Your task to perform on an android device: turn off data saver in the chrome app Image 0: 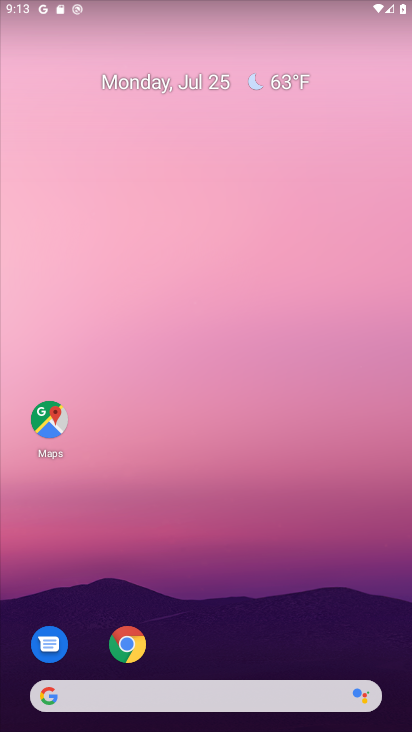
Step 0: drag from (311, 433) to (321, 277)
Your task to perform on an android device: turn off data saver in the chrome app Image 1: 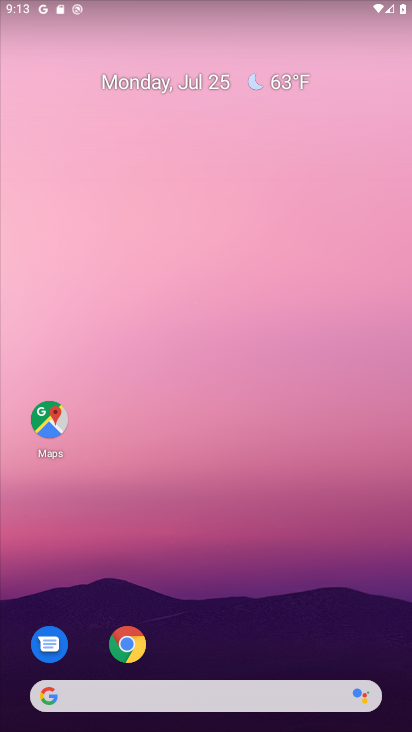
Step 1: drag from (215, 567) to (267, 187)
Your task to perform on an android device: turn off data saver in the chrome app Image 2: 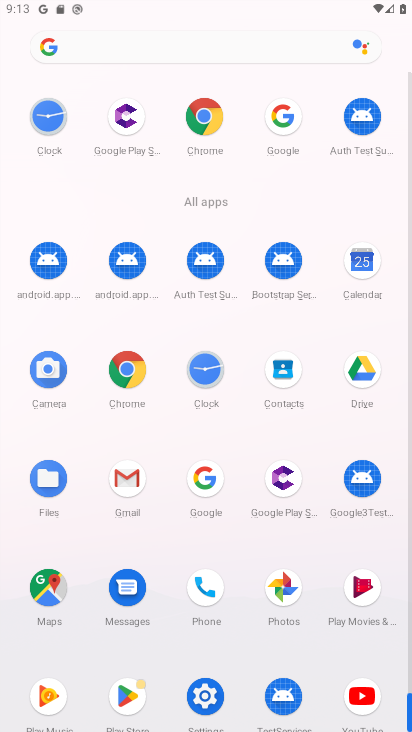
Step 2: click (215, 102)
Your task to perform on an android device: turn off data saver in the chrome app Image 3: 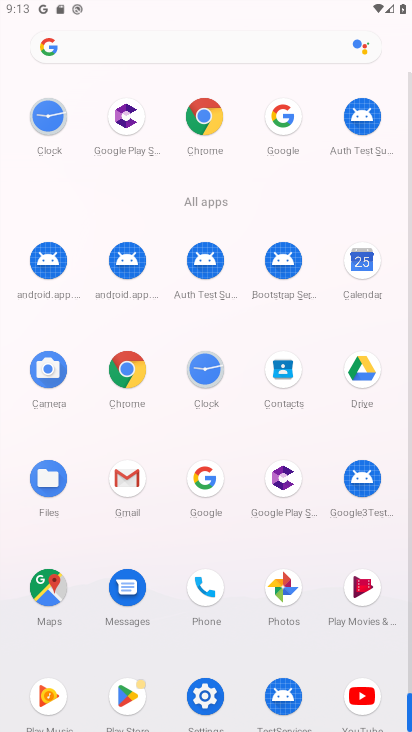
Step 3: click (209, 116)
Your task to perform on an android device: turn off data saver in the chrome app Image 4: 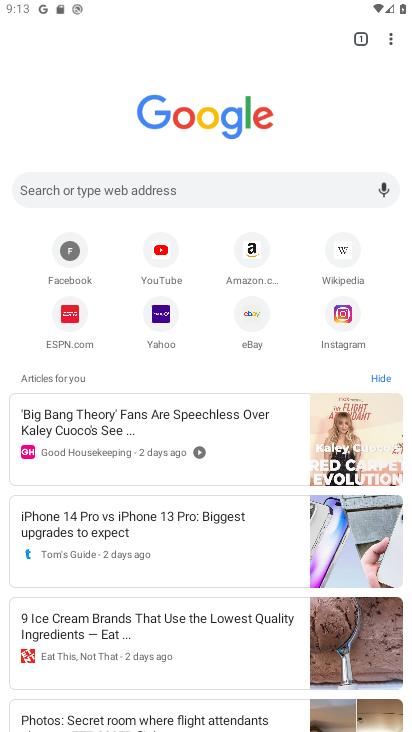
Step 4: click (383, 41)
Your task to perform on an android device: turn off data saver in the chrome app Image 5: 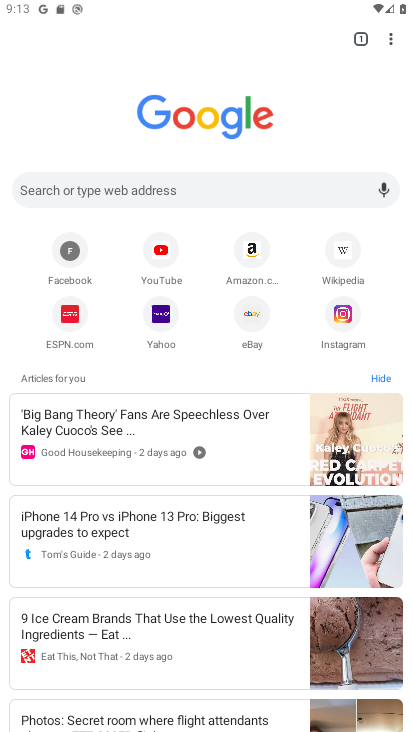
Step 5: click (391, 36)
Your task to perform on an android device: turn off data saver in the chrome app Image 6: 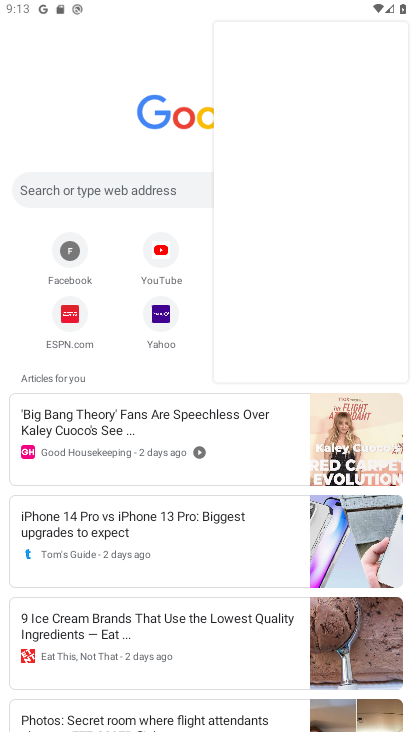
Step 6: click (392, 36)
Your task to perform on an android device: turn off data saver in the chrome app Image 7: 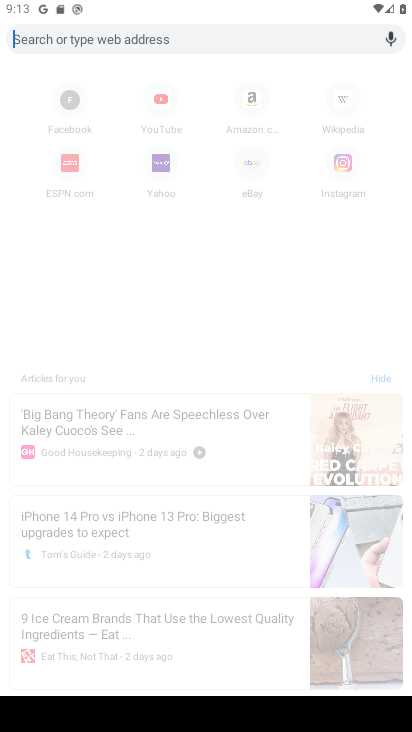
Step 7: click (18, 33)
Your task to perform on an android device: turn off data saver in the chrome app Image 8: 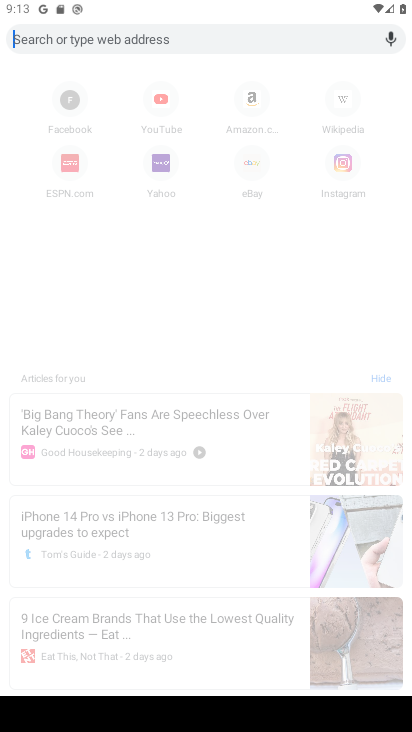
Step 8: click (28, 38)
Your task to perform on an android device: turn off data saver in the chrome app Image 9: 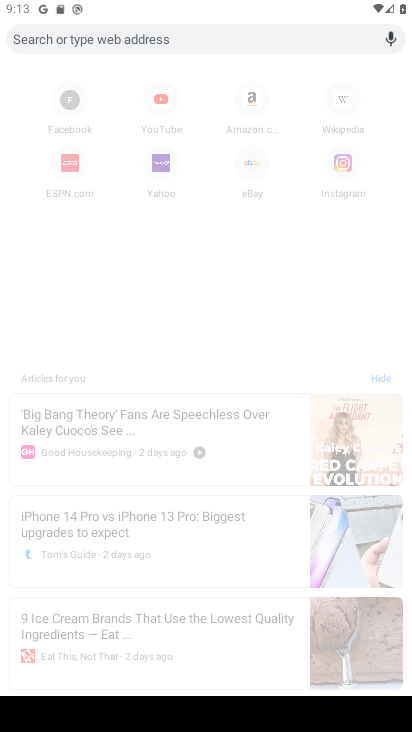
Step 9: press back button
Your task to perform on an android device: turn off data saver in the chrome app Image 10: 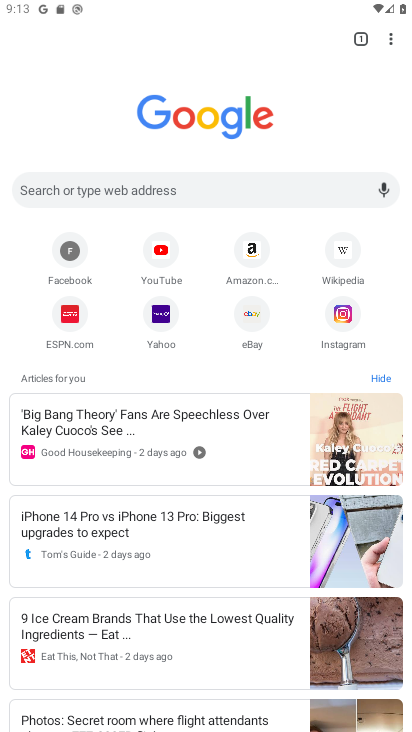
Step 10: click (394, 40)
Your task to perform on an android device: turn off data saver in the chrome app Image 11: 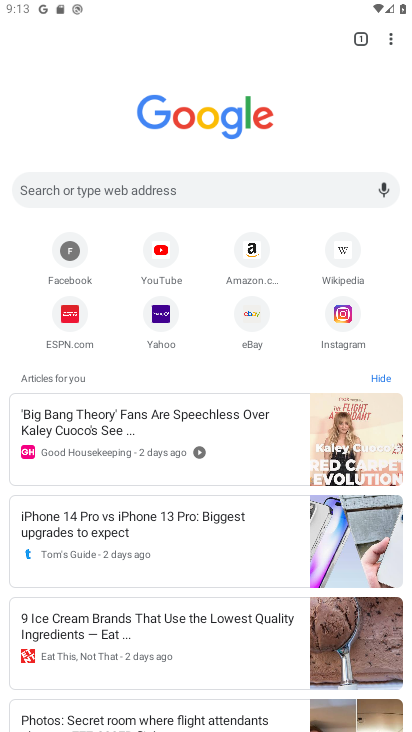
Step 11: drag from (390, 46) to (242, 318)
Your task to perform on an android device: turn off data saver in the chrome app Image 12: 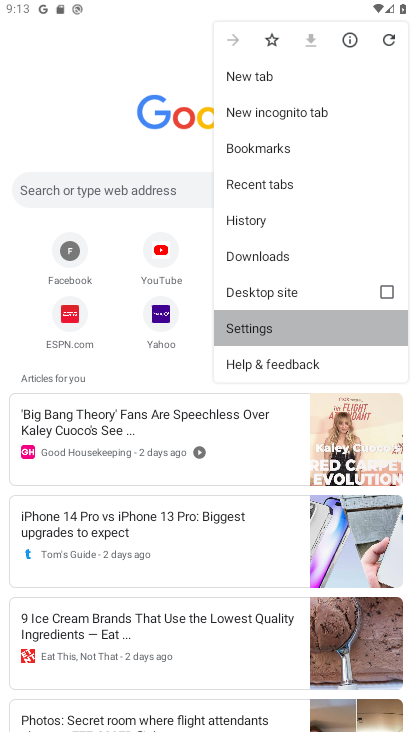
Step 12: click (245, 318)
Your task to perform on an android device: turn off data saver in the chrome app Image 13: 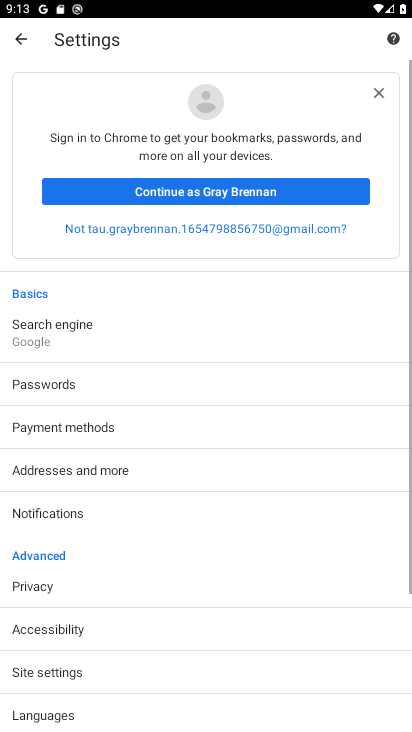
Step 13: drag from (40, 628) to (31, 187)
Your task to perform on an android device: turn off data saver in the chrome app Image 14: 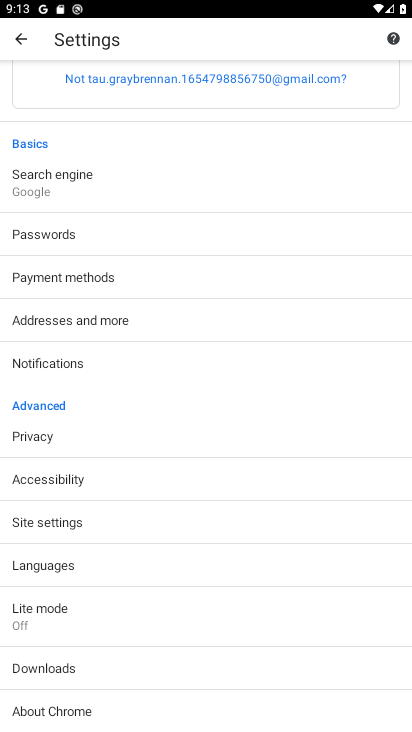
Step 14: click (35, 593)
Your task to perform on an android device: turn off data saver in the chrome app Image 15: 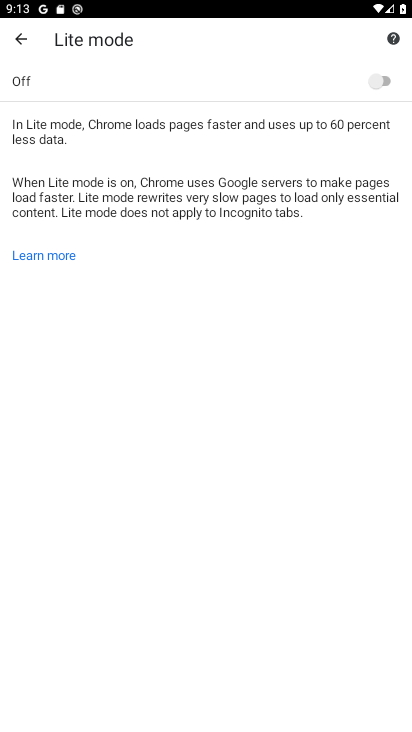
Step 15: task complete